Your task to perform on an android device: Show me popular games on the Play Store Image 0: 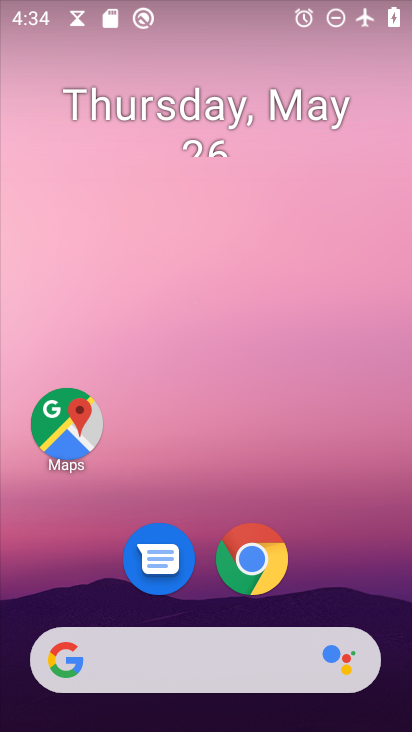
Step 0: drag from (345, 560) to (208, 47)
Your task to perform on an android device: Show me popular games on the Play Store Image 1: 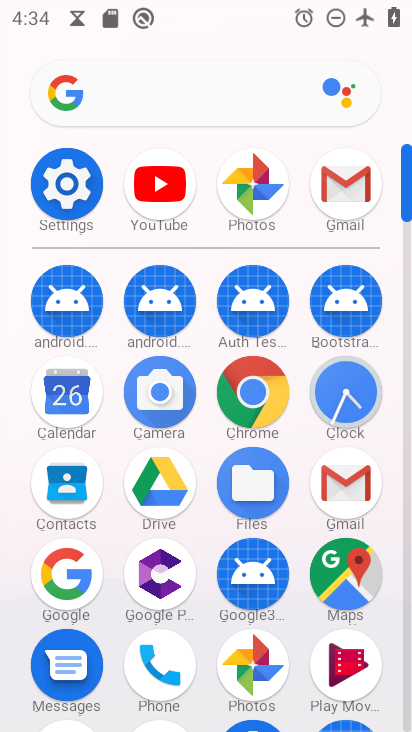
Step 1: drag from (219, 560) to (195, 172)
Your task to perform on an android device: Show me popular games on the Play Store Image 2: 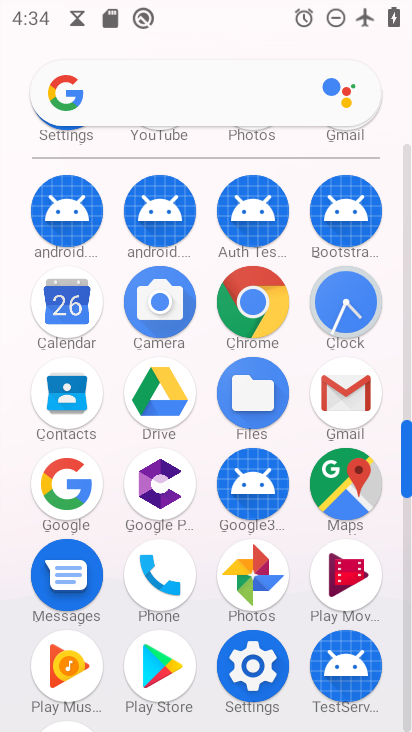
Step 2: click (162, 664)
Your task to perform on an android device: Show me popular games on the Play Store Image 3: 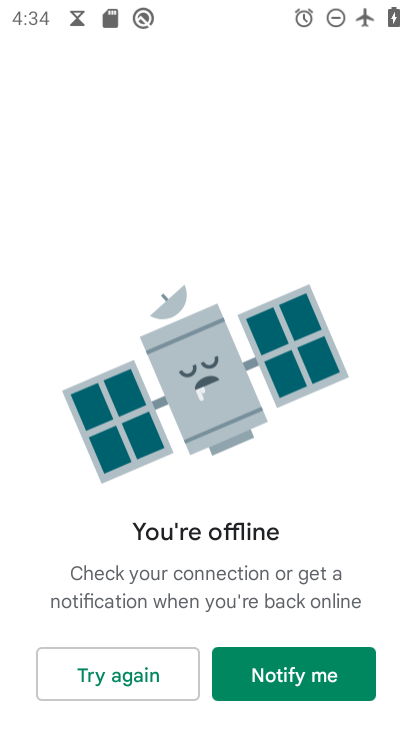
Step 3: click (148, 671)
Your task to perform on an android device: Show me popular games on the Play Store Image 4: 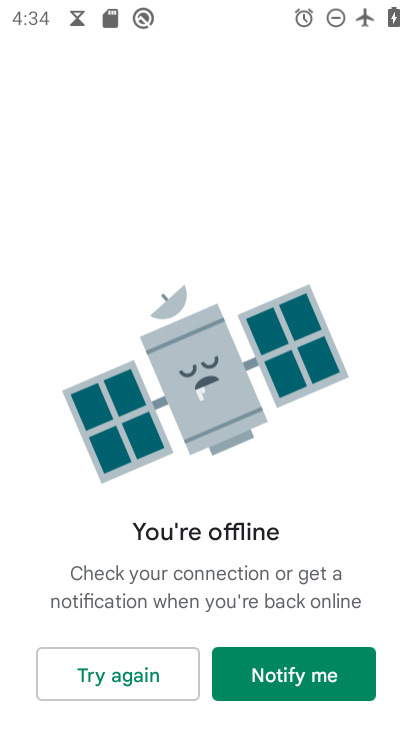
Step 4: task complete